Your task to perform on an android device: turn on wifi Image 0: 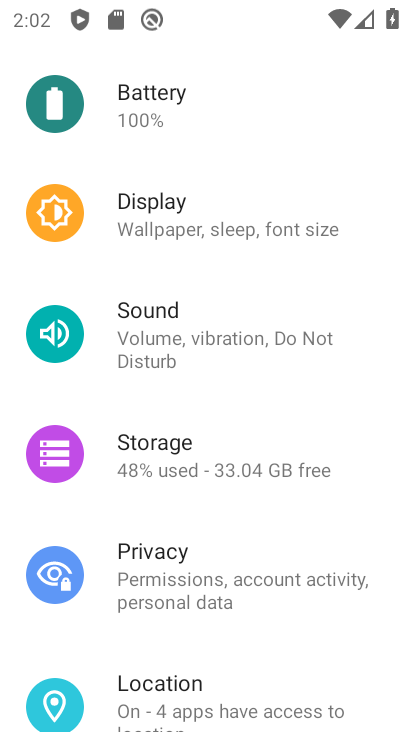
Step 0: drag from (243, 154) to (150, 702)
Your task to perform on an android device: turn on wifi Image 1: 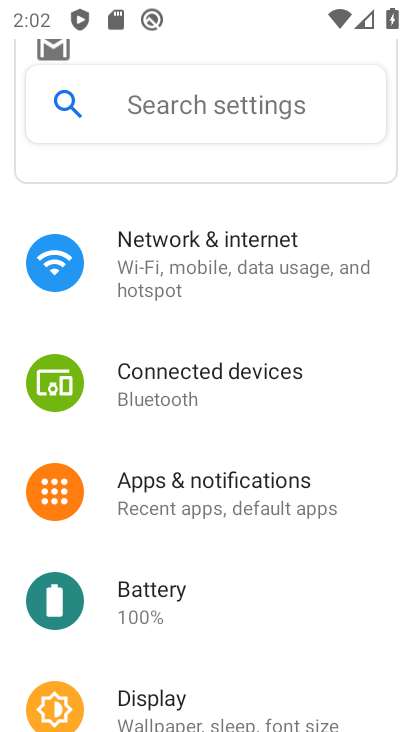
Step 1: click (234, 257)
Your task to perform on an android device: turn on wifi Image 2: 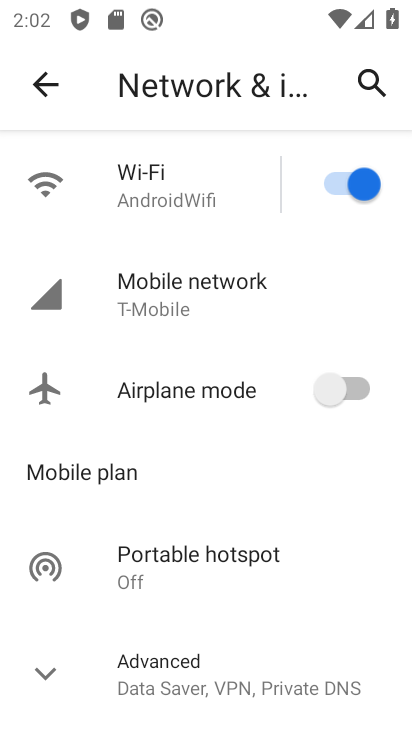
Step 2: task complete